Your task to perform on an android device: turn on showing notifications on the lock screen Image 0: 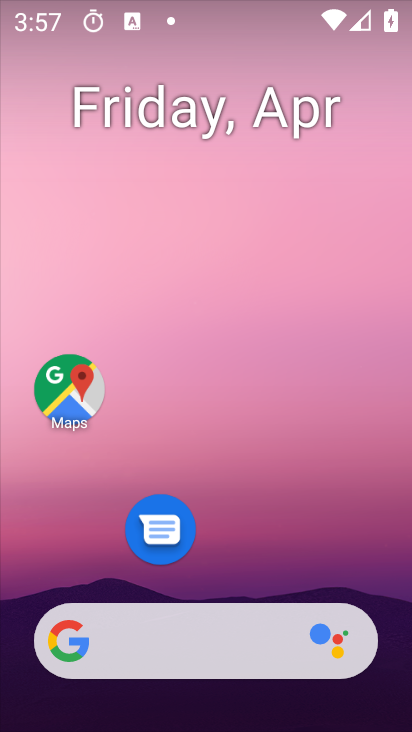
Step 0: drag from (258, 380) to (248, 47)
Your task to perform on an android device: turn on showing notifications on the lock screen Image 1: 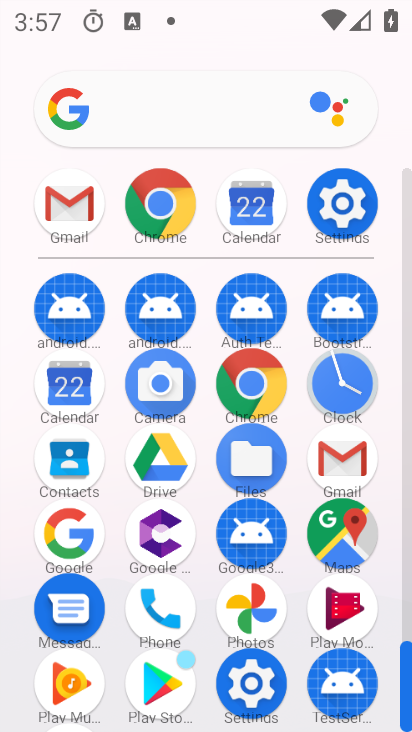
Step 1: click (348, 212)
Your task to perform on an android device: turn on showing notifications on the lock screen Image 2: 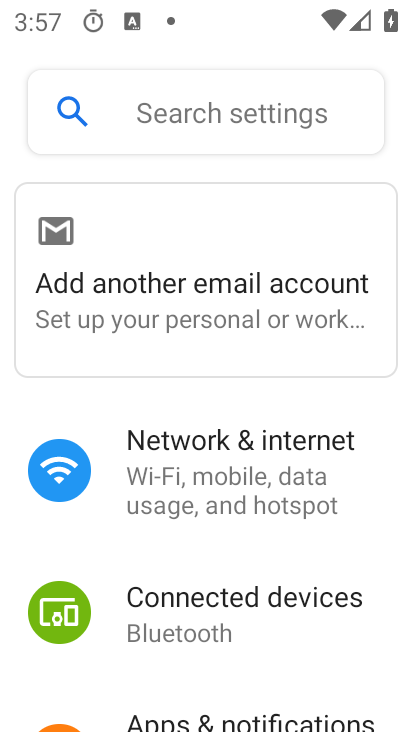
Step 2: drag from (251, 589) to (333, 175)
Your task to perform on an android device: turn on showing notifications on the lock screen Image 3: 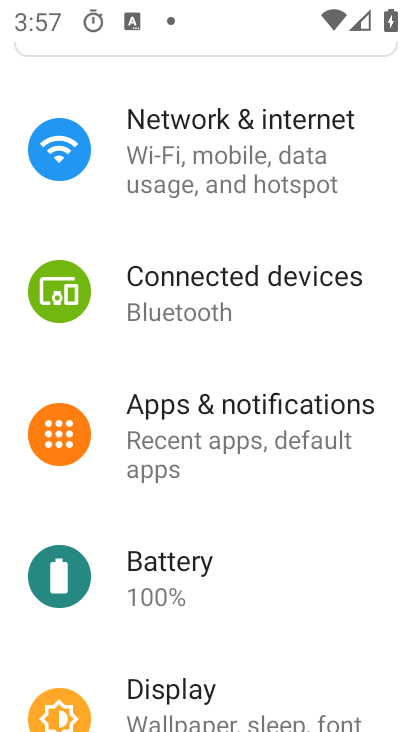
Step 3: drag from (272, 464) to (321, 174)
Your task to perform on an android device: turn on showing notifications on the lock screen Image 4: 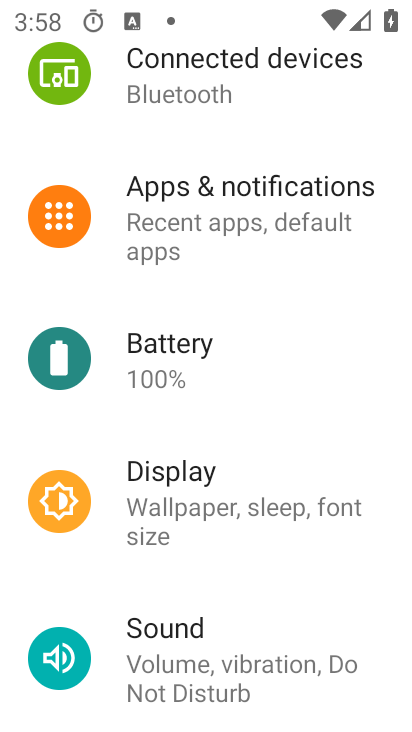
Step 4: click (262, 238)
Your task to perform on an android device: turn on showing notifications on the lock screen Image 5: 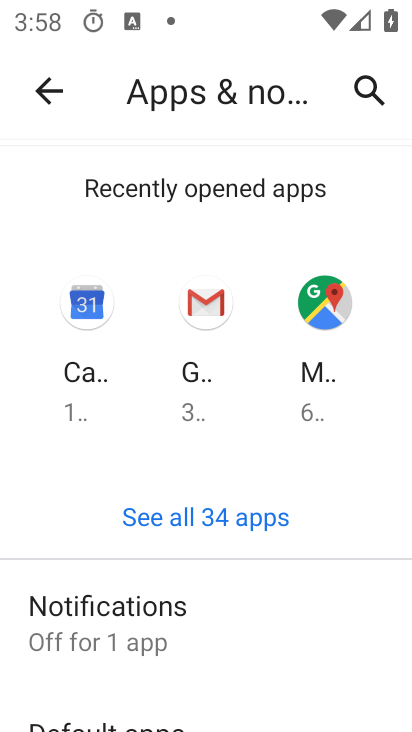
Step 5: click (213, 623)
Your task to perform on an android device: turn on showing notifications on the lock screen Image 6: 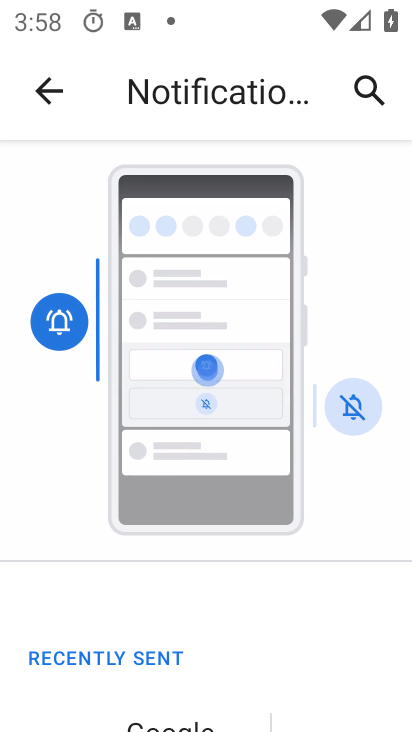
Step 6: drag from (193, 522) to (202, 224)
Your task to perform on an android device: turn on showing notifications on the lock screen Image 7: 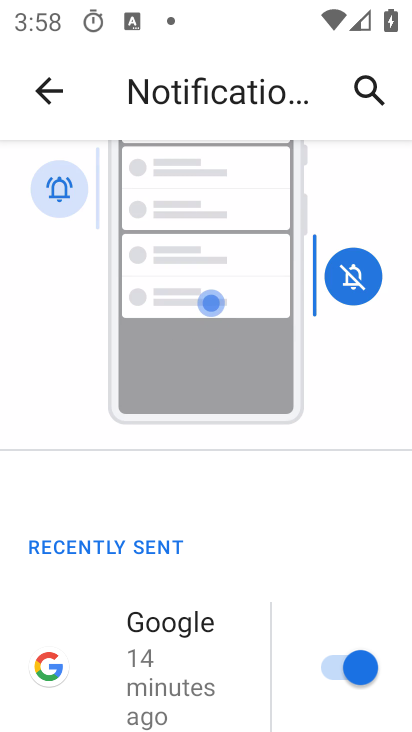
Step 7: drag from (202, 581) to (235, 151)
Your task to perform on an android device: turn on showing notifications on the lock screen Image 8: 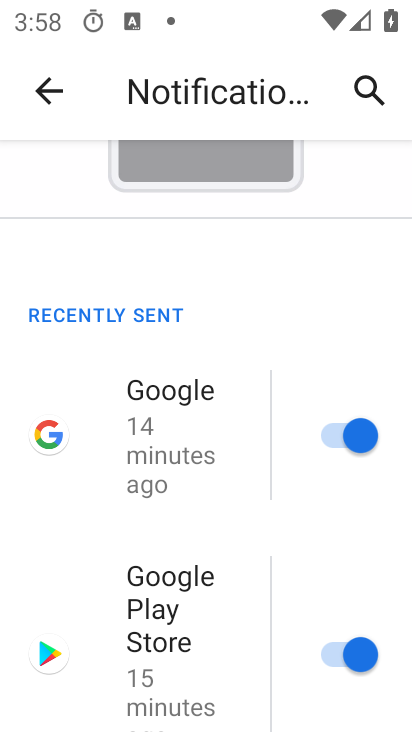
Step 8: drag from (150, 575) to (190, 149)
Your task to perform on an android device: turn on showing notifications on the lock screen Image 9: 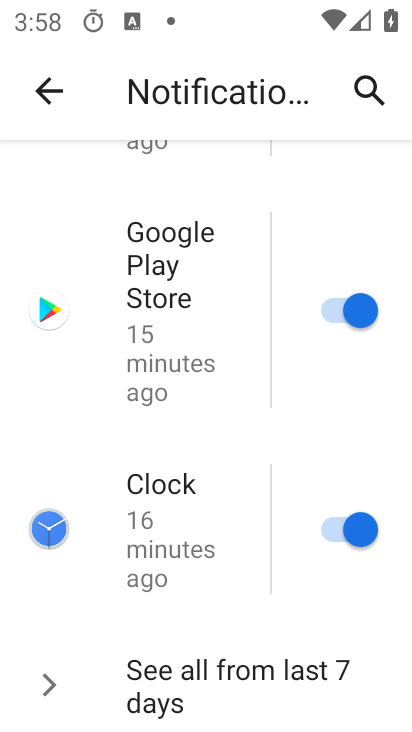
Step 9: drag from (171, 570) to (198, 196)
Your task to perform on an android device: turn on showing notifications on the lock screen Image 10: 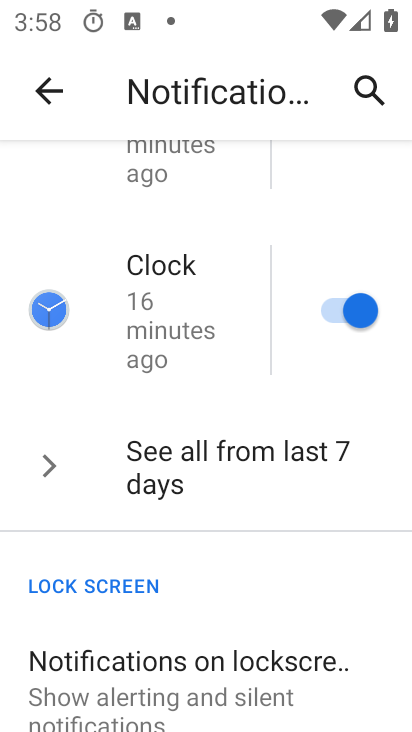
Step 10: drag from (142, 580) to (215, 211)
Your task to perform on an android device: turn on showing notifications on the lock screen Image 11: 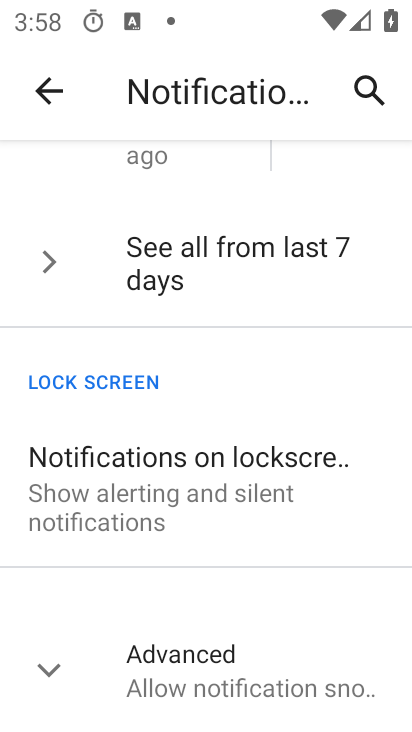
Step 11: click (202, 516)
Your task to perform on an android device: turn on showing notifications on the lock screen Image 12: 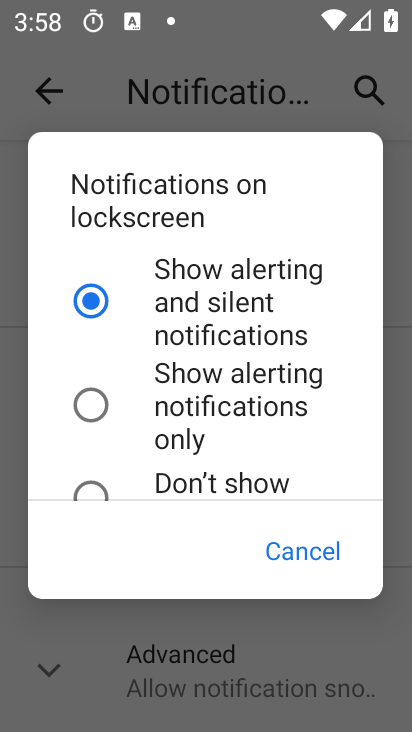
Step 12: task complete